Your task to perform on an android device: uninstall "Fetch Rewards" Image 0: 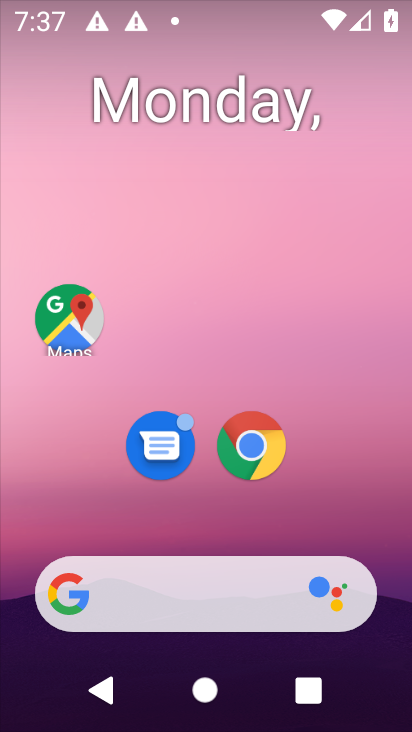
Step 0: drag from (379, 513) to (210, 59)
Your task to perform on an android device: uninstall "Fetch Rewards" Image 1: 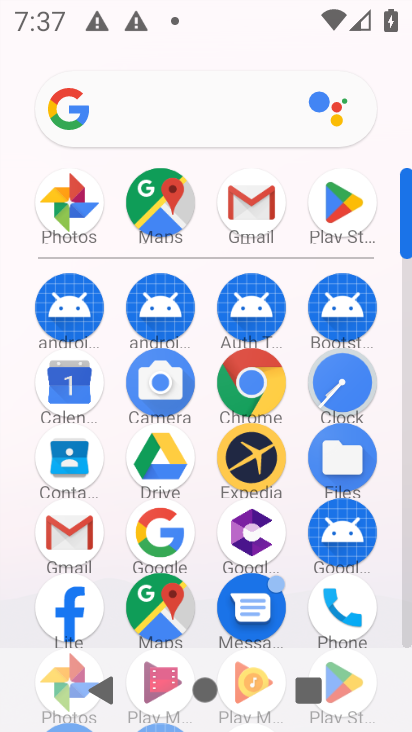
Step 1: click (335, 215)
Your task to perform on an android device: uninstall "Fetch Rewards" Image 2: 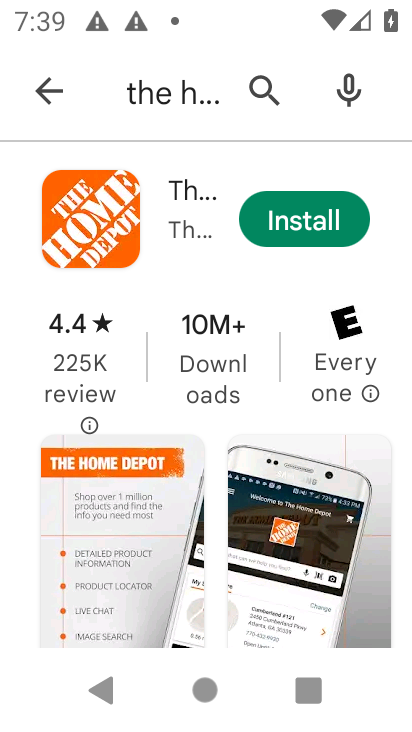
Step 2: press back button
Your task to perform on an android device: uninstall "Fetch Rewards" Image 3: 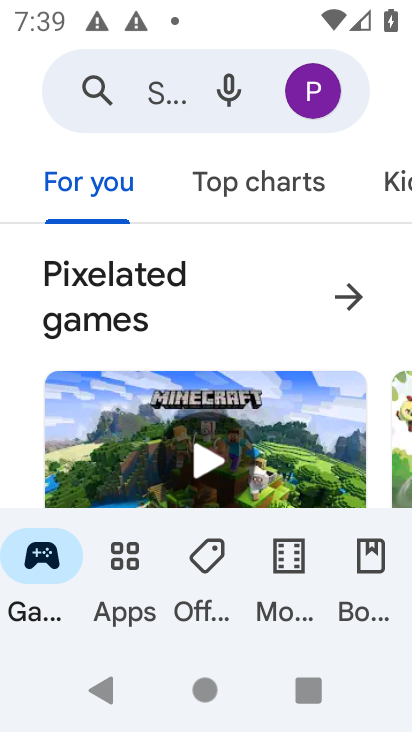
Step 3: click (136, 86)
Your task to perform on an android device: uninstall "Fetch Rewards" Image 4: 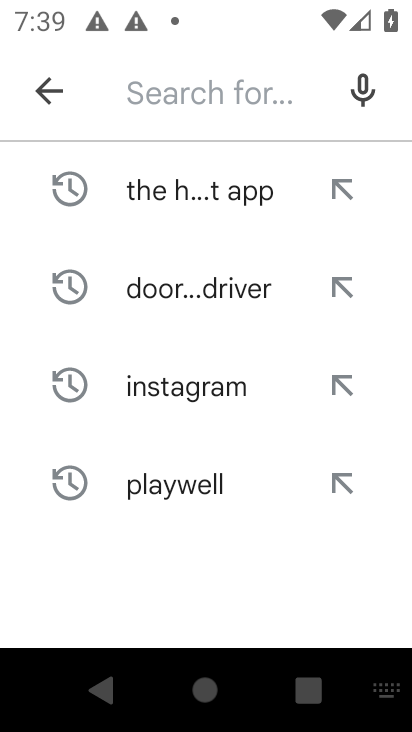
Step 4: type "Fetch Rewards"
Your task to perform on an android device: uninstall "Fetch Rewards" Image 5: 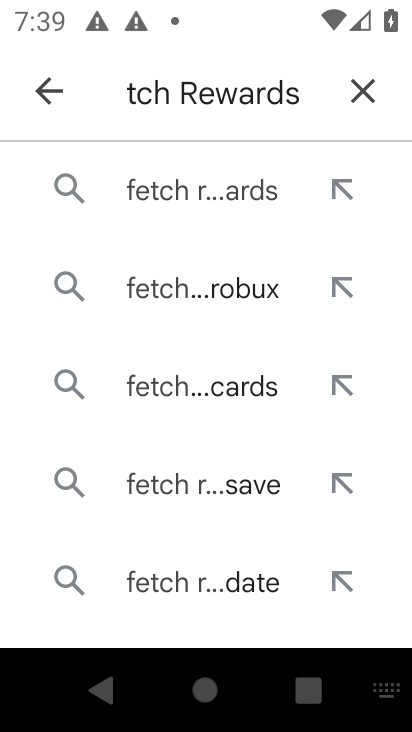
Step 5: click (249, 206)
Your task to perform on an android device: uninstall "Fetch Rewards" Image 6: 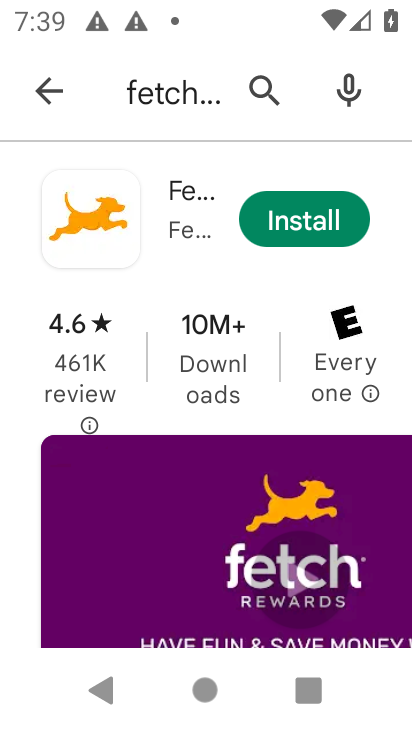
Step 6: task complete